Your task to perform on an android device: turn off notifications in google photos Image 0: 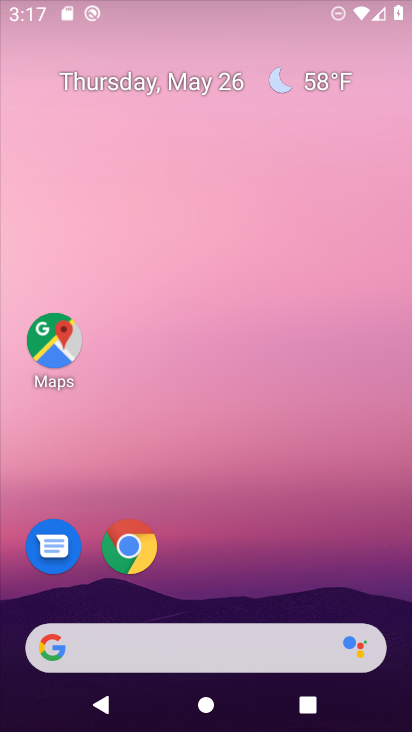
Step 0: press home button
Your task to perform on an android device: turn off notifications in google photos Image 1: 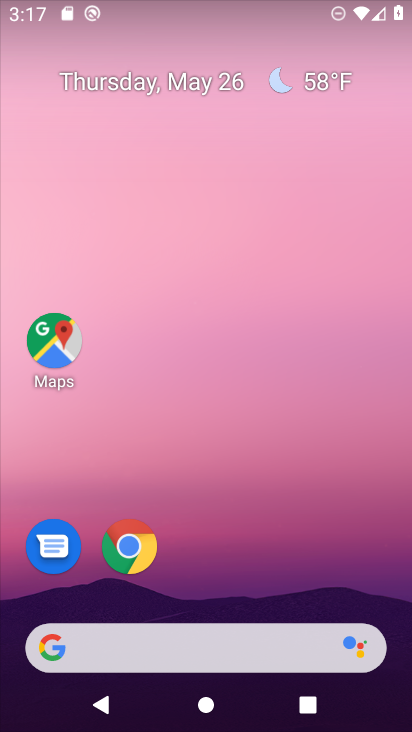
Step 1: drag from (191, 605) to (229, 149)
Your task to perform on an android device: turn off notifications in google photos Image 2: 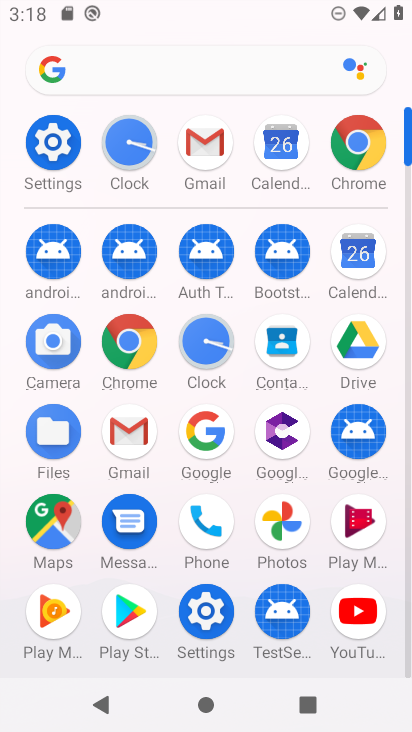
Step 2: click (285, 511)
Your task to perform on an android device: turn off notifications in google photos Image 3: 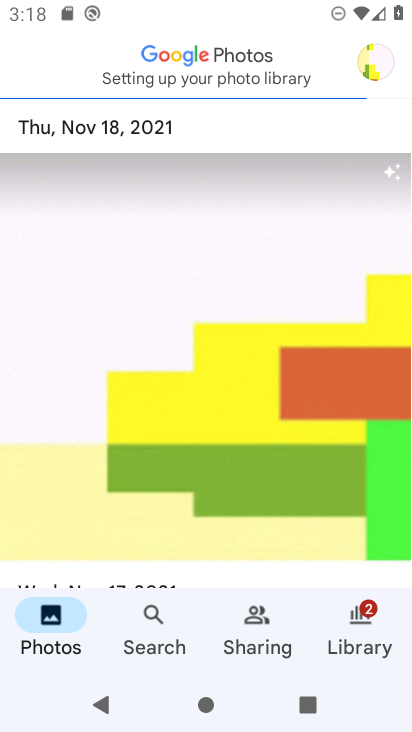
Step 3: click (373, 61)
Your task to perform on an android device: turn off notifications in google photos Image 4: 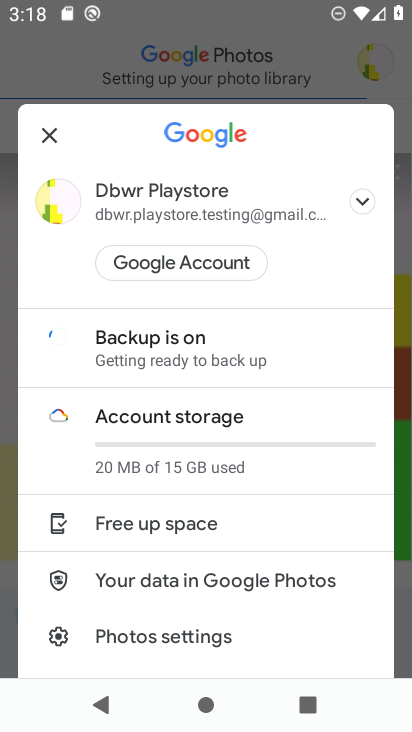
Step 4: click (182, 640)
Your task to perform on an android device: turn off notifications in google photos Image 5: 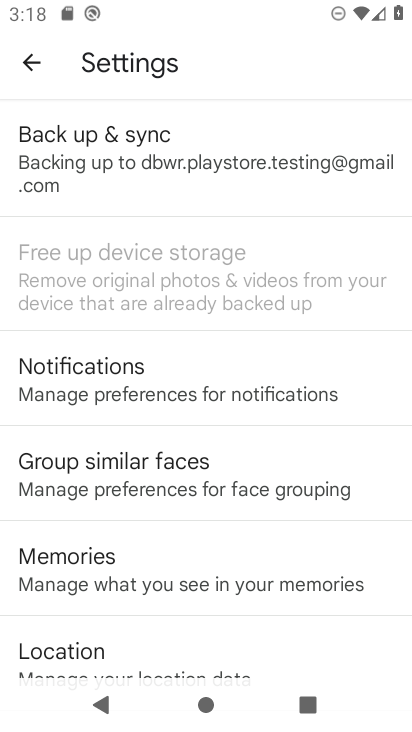
Step 5: click (163, 370)
Your task to perform on an android device: turn off notifications in google photos Image 6: 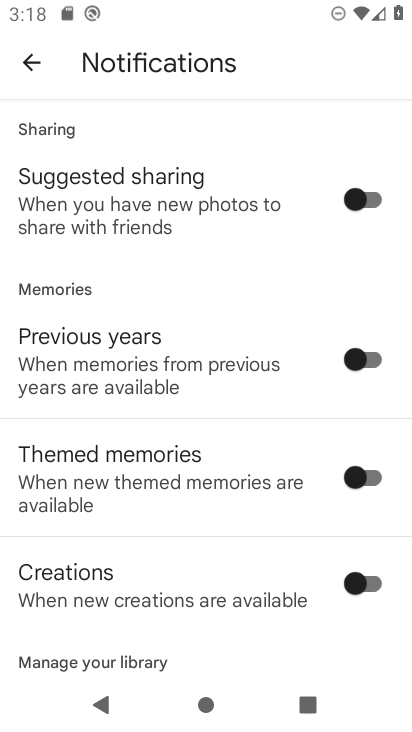
Step 6: drag from (224, 424) to (261, 107)
Your task to perform on an android device: turn off notifications in google photos Image 7: 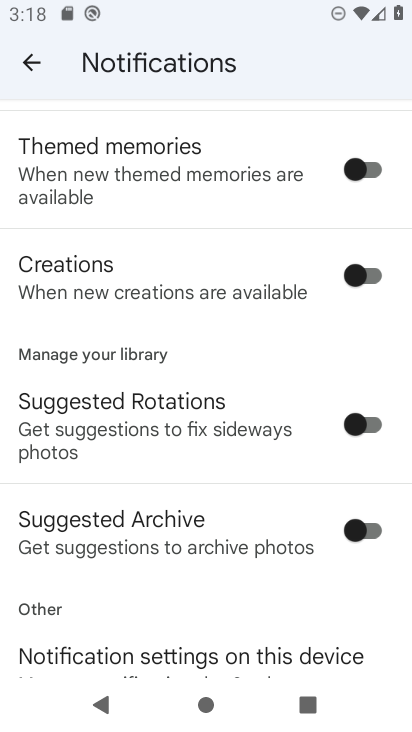
Step 7: drag from (224, 610) to (250, 187)
Your task to perform on an android device: turn off notifications in google photos Image 8: 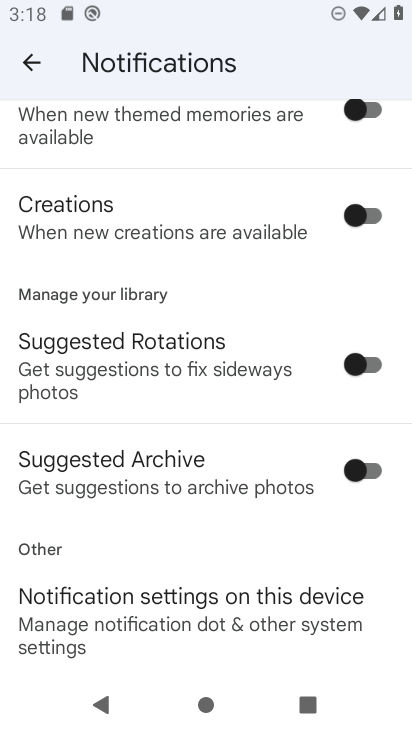
Step 8: click (203, 614)
Your task to perform on an android device: turn off notifications in google photos Image 9: 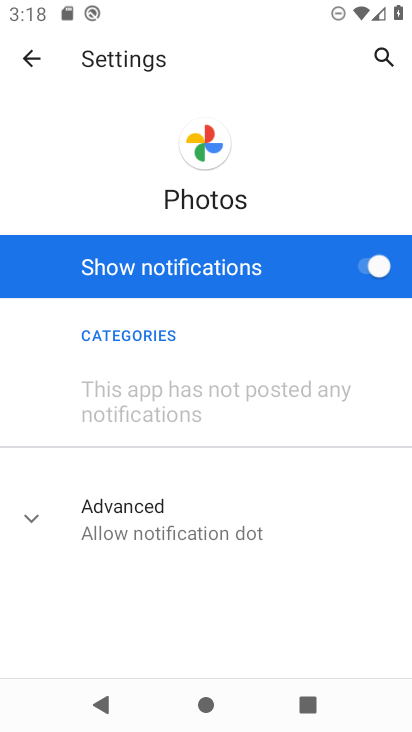
Step 9: click (369, 261)
Your task to perform on an android device: turn off notifications in google photos Image 10: 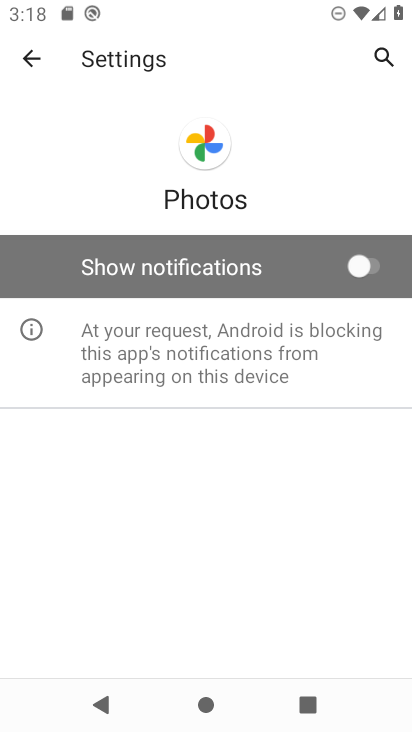
Step 10: task complete